Your task to perform on an android device: Open eBay Image 0: 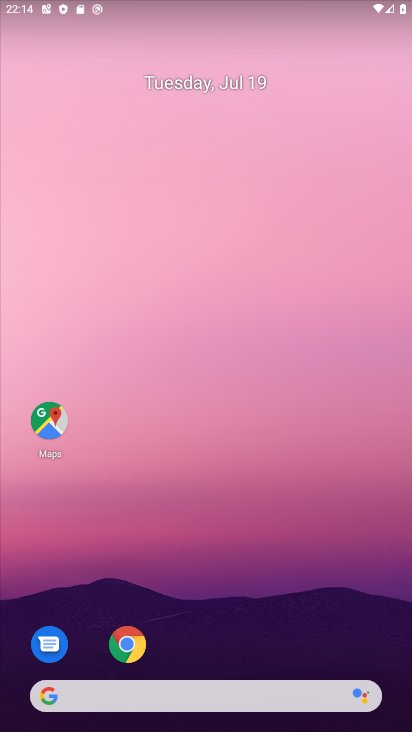
Step 0: drag from (245, 728) to (259, 70)
Your task to perform on an android device: Open eBay Image 1: 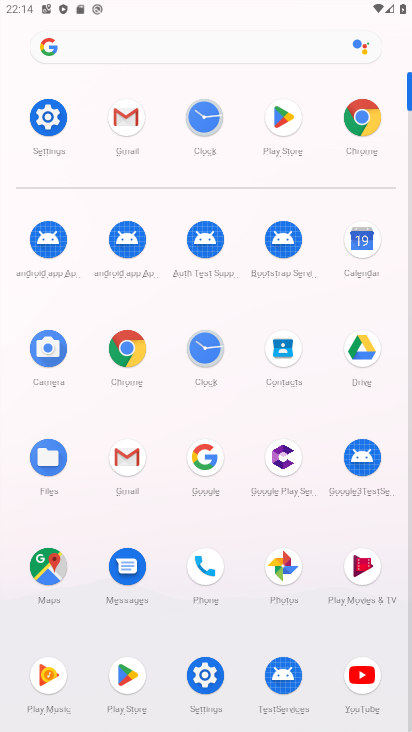
Step 1: click (363, 118)
Your task to perform on an android device: Open eBay Image 2: 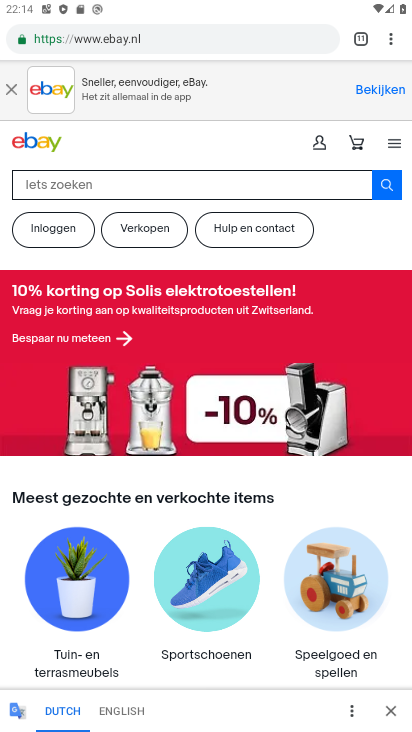
Step 2: task complete